Your task to perform on an android device: Go to Android settings Image 0: 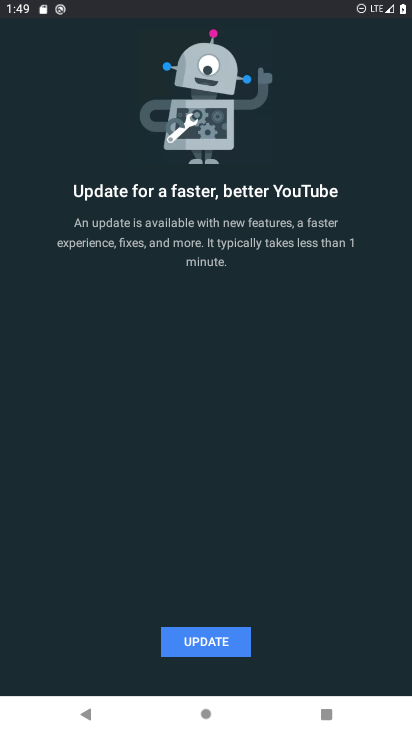
Step 0: press home button
Your task to perform on an android device: Go to Android settings Image 1: 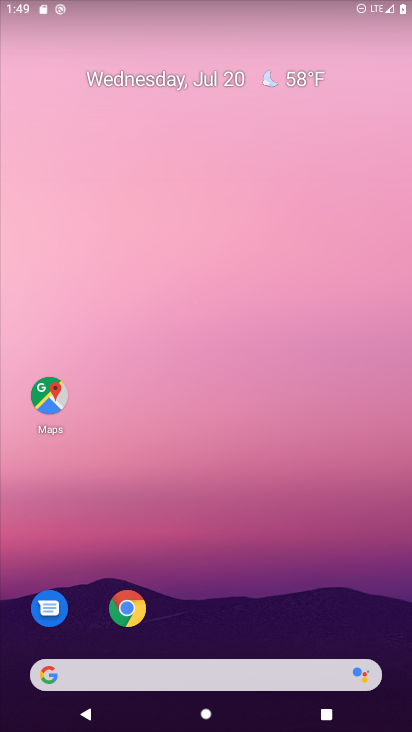
Step 1: drag from (247, 727) to (243, 186)
Your task to perform on an android device: Go to Android settings Image 2: 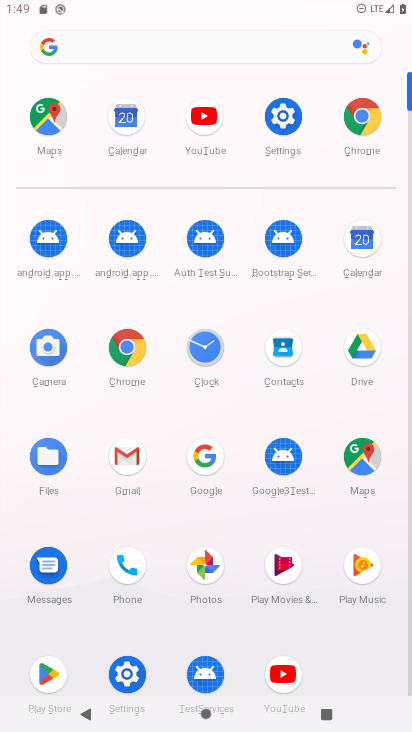
Step 2: click (282, 120)
Your task to perform on an android device: Go to Android settings Image 3: 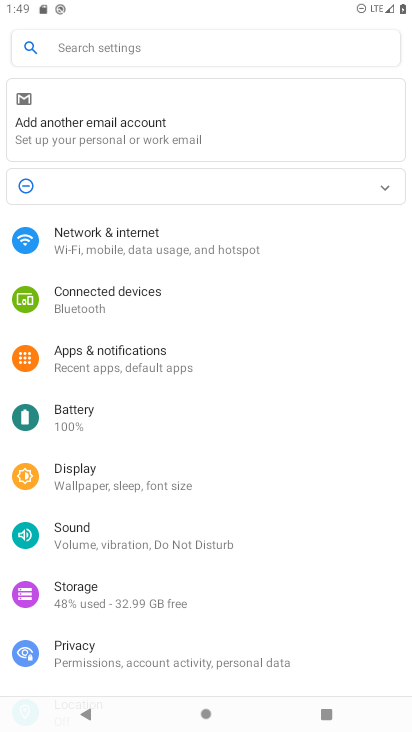
Step 3: task complete